Your task to perform on an android device: open app "Fetch Rewards" Image 0: 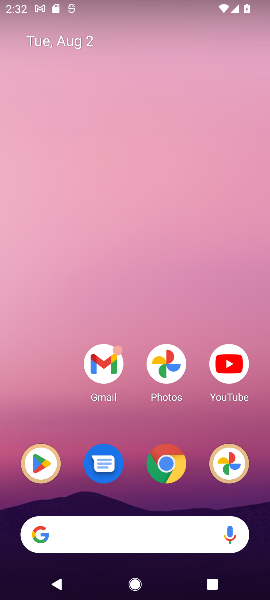
Step 0: click (42, 465)
Your task to perform on an android device: open app "Fetch Rewards" Image 1: 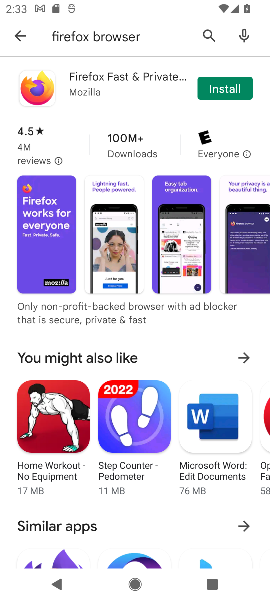
Step 1: click (206, 30)
Your task to perform on an android device: open app "Fetch Rewards" Image 2: 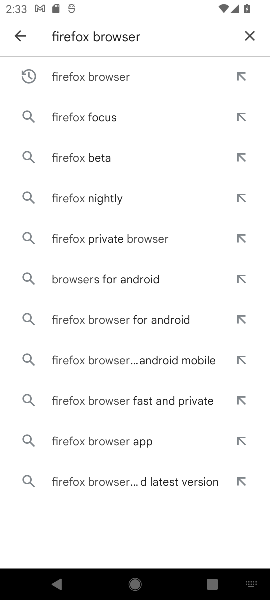
Step 2: click (250, 32)
Your task to perform on an android device: open app "Fetch Rewards" Image 3: 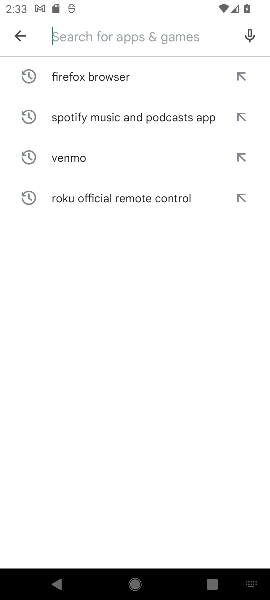
Step 3: type "Fetch Rewards"
Your task to perform on an android device: open app "Fetch Rewards" Image 4: 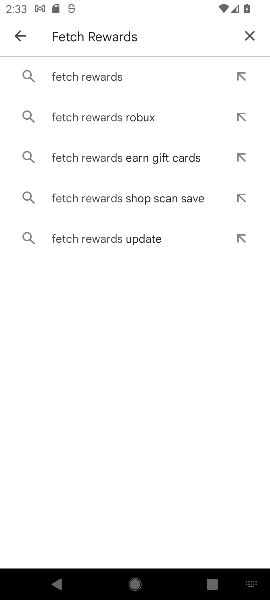
Step 4: click (90, 72)
Your task to perform on an android device: open app "Fetch Rewards" Image 5: 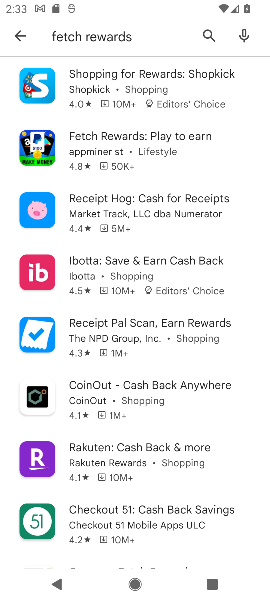
Step 5: click (175, 142)
Your task to perform on an android device: open app "Fetch Rewards" Image 6: 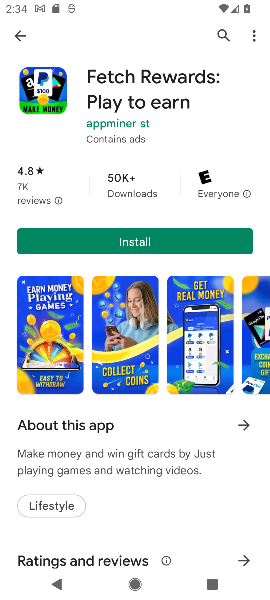
Step 6: task complete